Your task to perform on an android device: Open display settings Image 0: 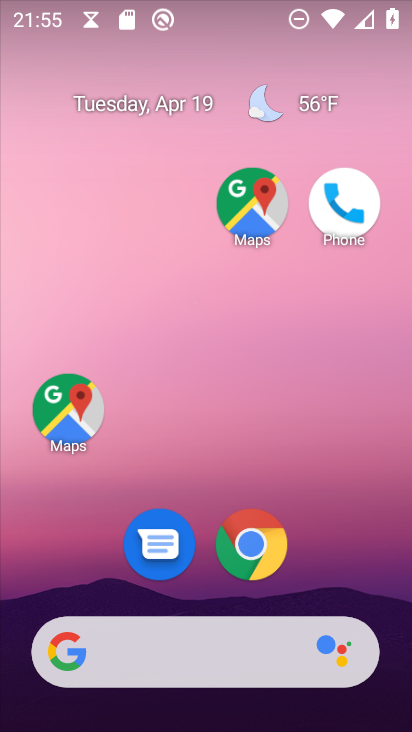
Step 0: drag from (167, 572) to (236, 122)
Your task to perform on an android device: Open display settings Image 1: 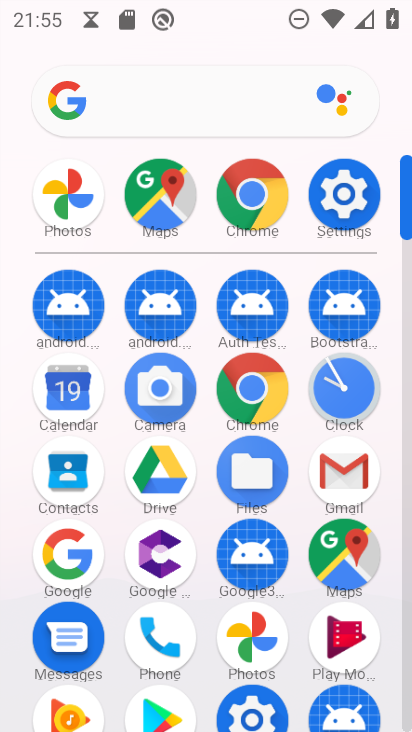
Step 1: click (343, 208)
Your task to perform on an android device: Open display settings Image 2: 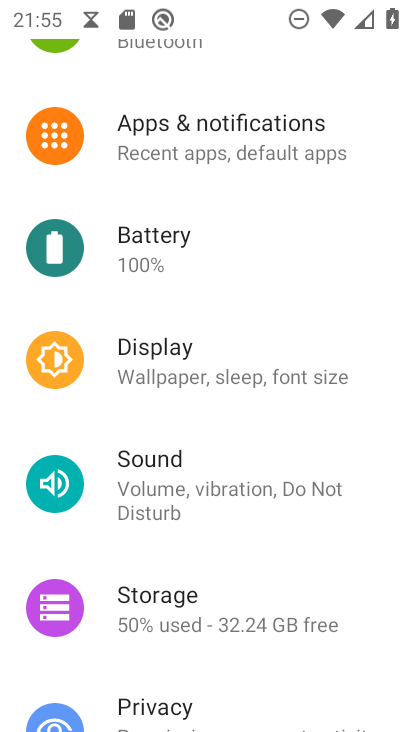
Step 2: click (157, 349)
Your task to perform on an android device: Open display settings Image 3: 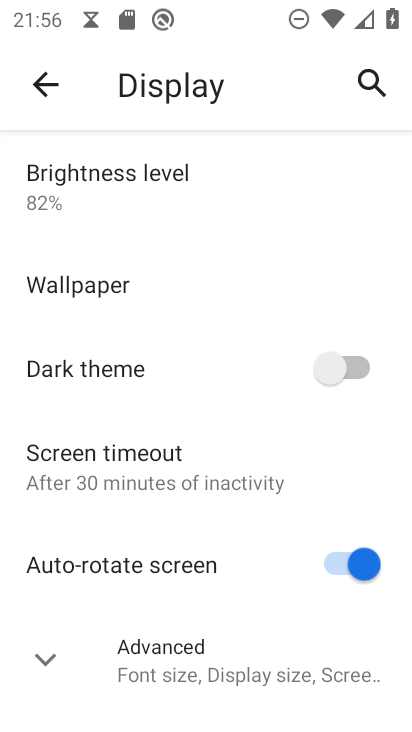
Step 3: task complete